Your task to perform on an android device: uninstall "NewsBreak: Local News & Alerts" Image 0: 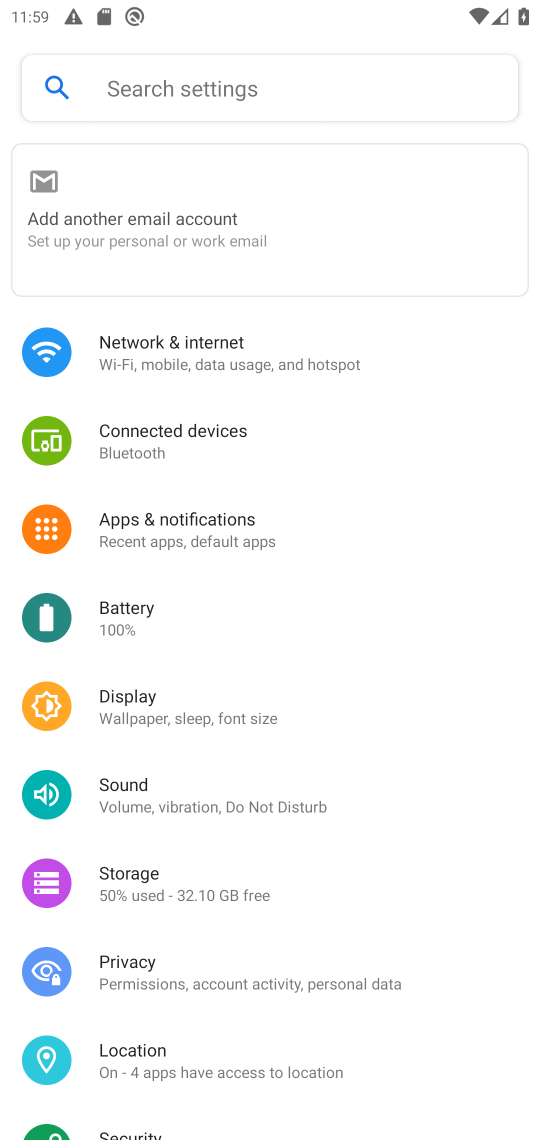
Step 0: press home button
Your task to perform on an android device: uninstall "NewsBreak: Local News & Alerts" Image 1: 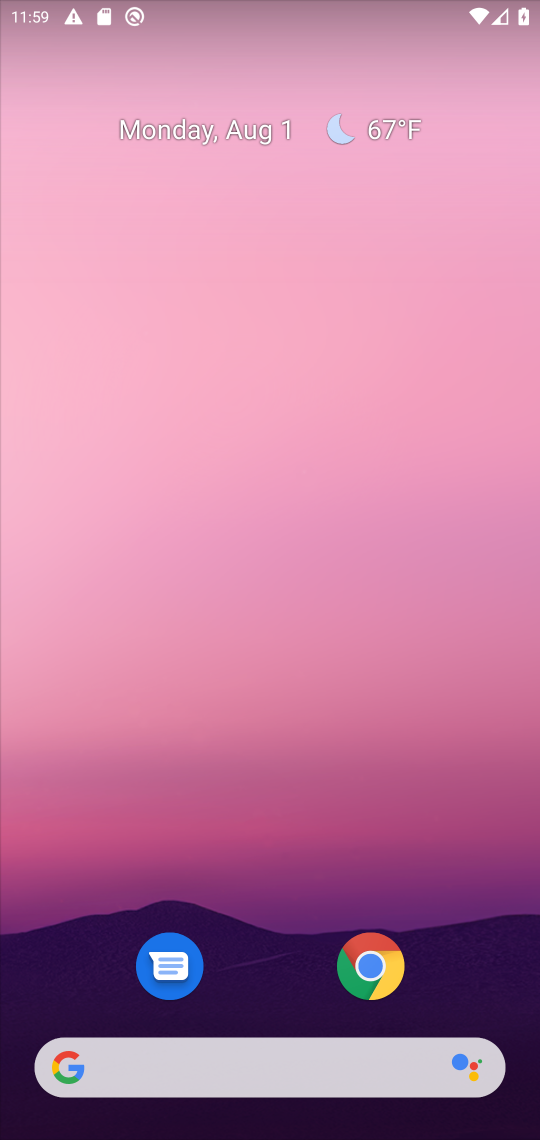
Step 1: drag from (465, 956) to (415, 116)
Your task to perform on an android device: uninstall "NewsBreak: Local News & Alerts" Image 2: 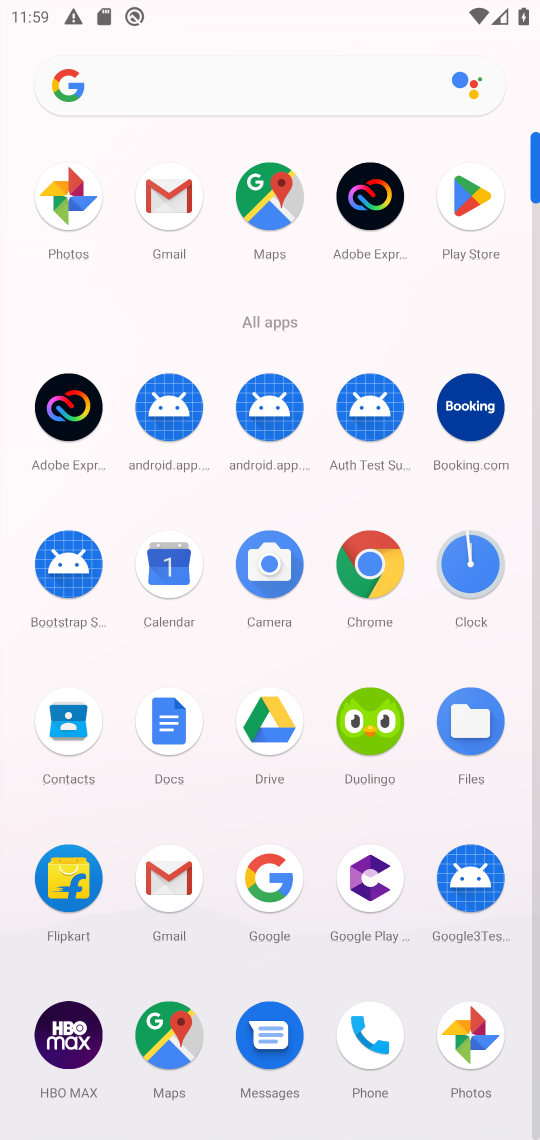
Step 2: click (465, 199)
Your task to perform on an android device: uninstall "NewsBreak: Local News & Alerts" Image 3: 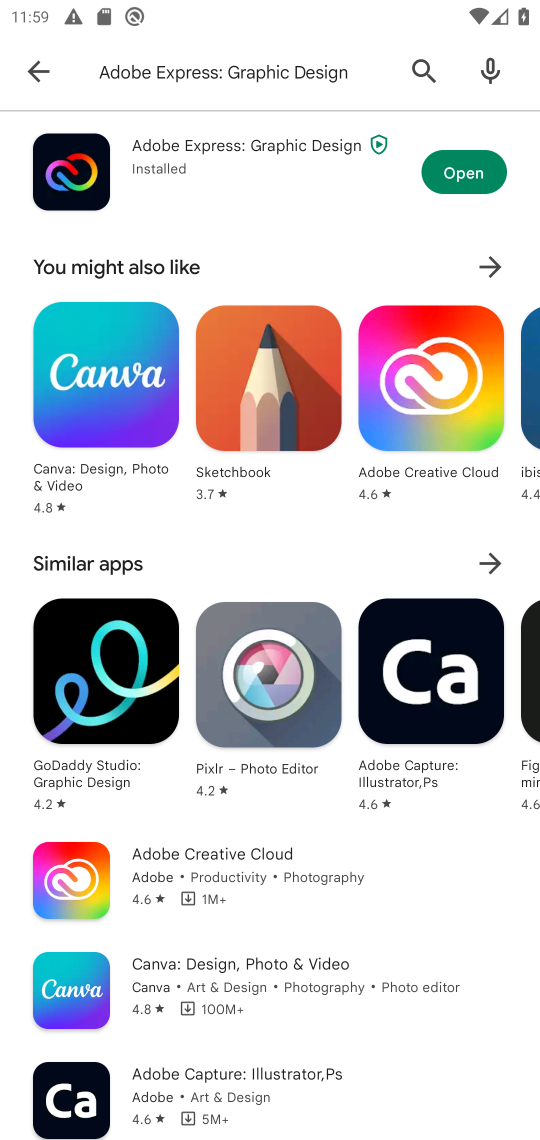
Step 3: click (424, 72)
Your task to perform on an android device: uninstall "NewsBreak: Local News & Alerts" Image 4: 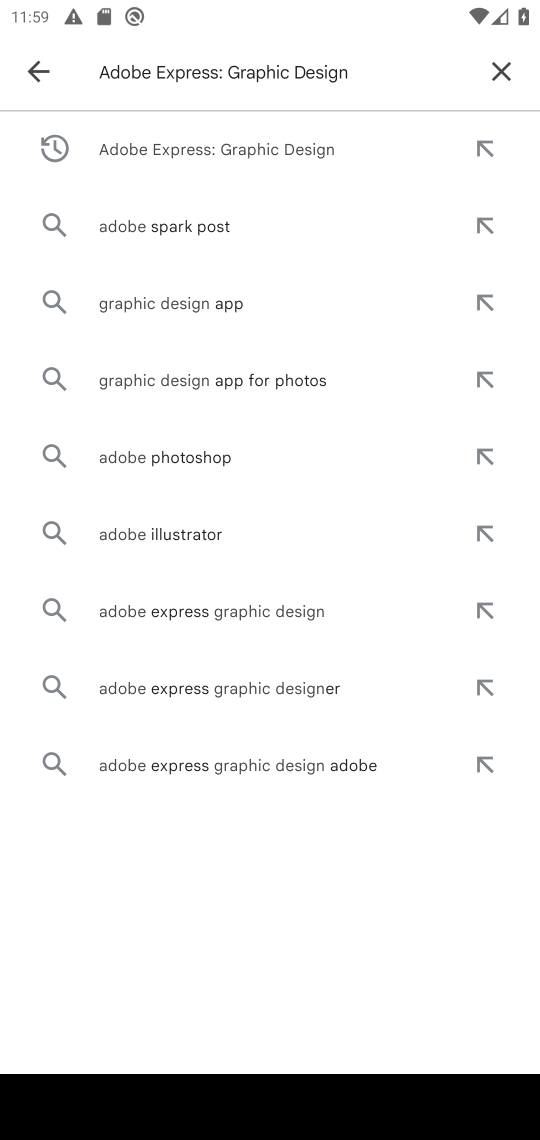
Step 4: click (488, 66)
Your task to perform on an android device: uninstall "NewsBreak: Local News & Alerts" Image 5: 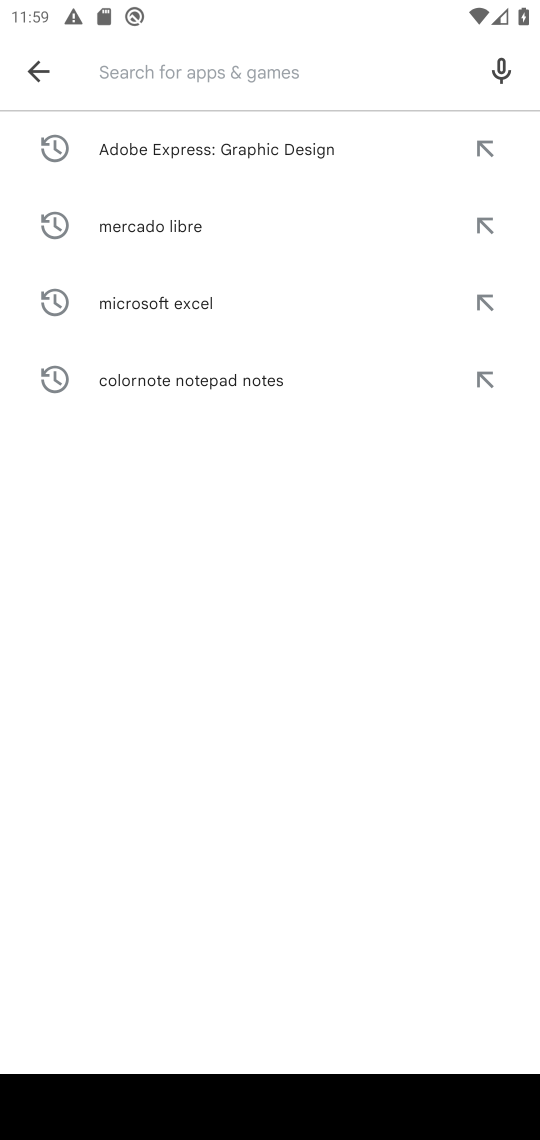
Step 5: type "NewsBreak: Local News & Alerts"
Your task to perform on an android device: uninstall "NewsBreak: Local News & Alerts" Image 6: 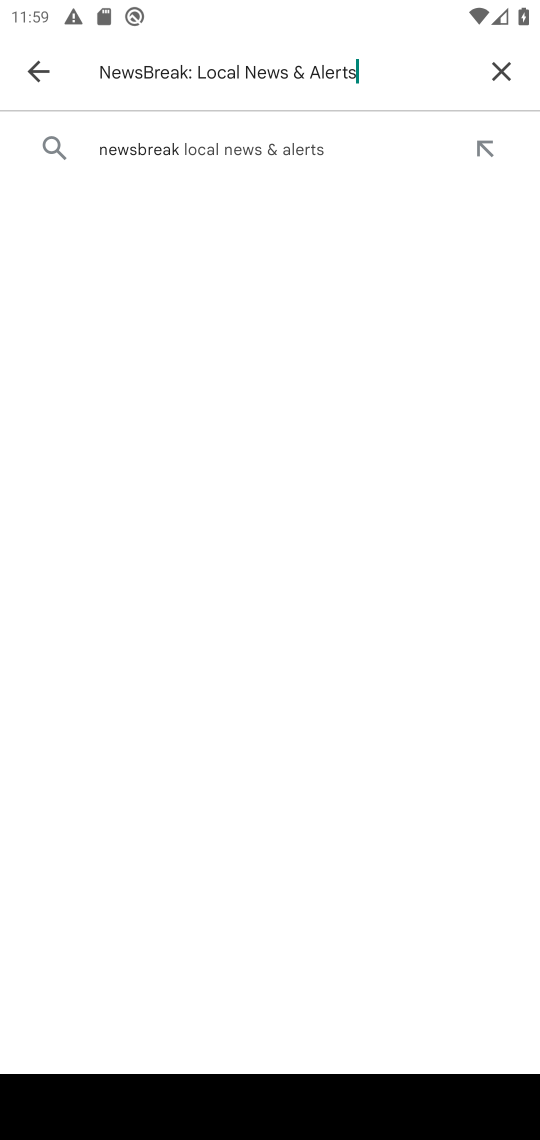
Step 6: click (324, 149)
Your task to perform on an android device: uninstall "NewsBreak: Local News & Alerts" Image 7: 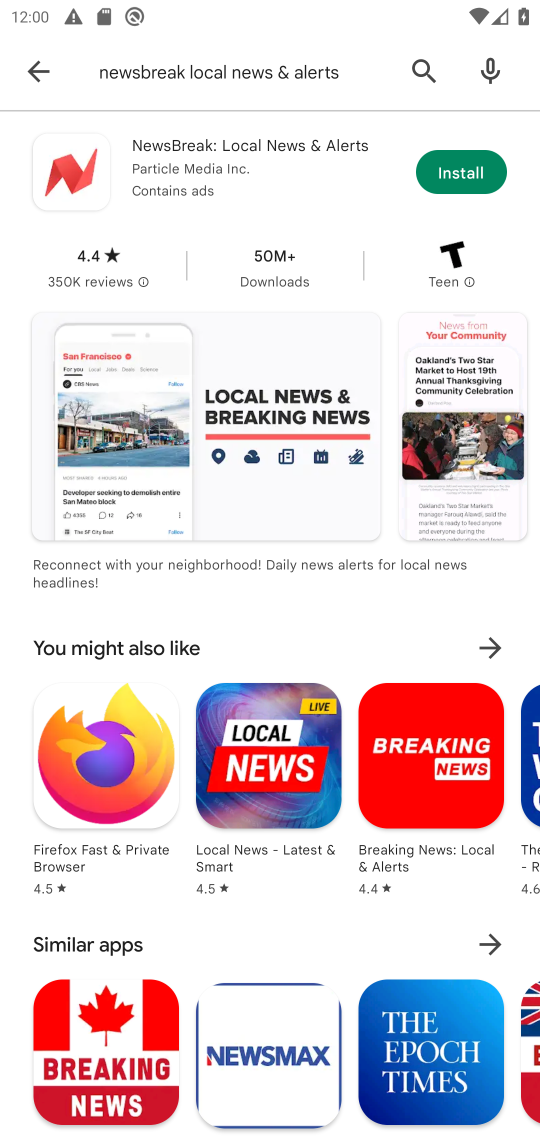
Step 7: task complete